Your task to perform on an android device: add a contact Image 0: 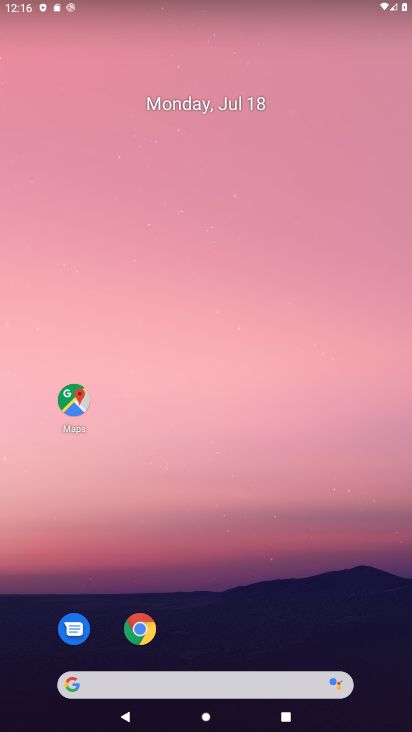
Step 0: click (180, 714)
Your task to perform on an android device: add a contact Image 1: 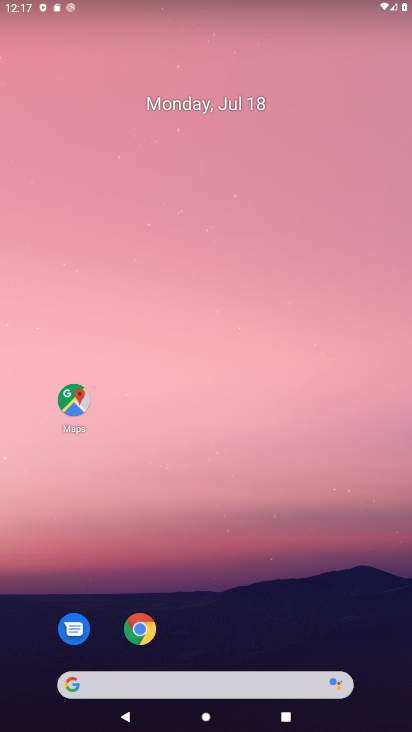
Step 1: press home button
Your task to perform on an android device: add a contact Image 2: 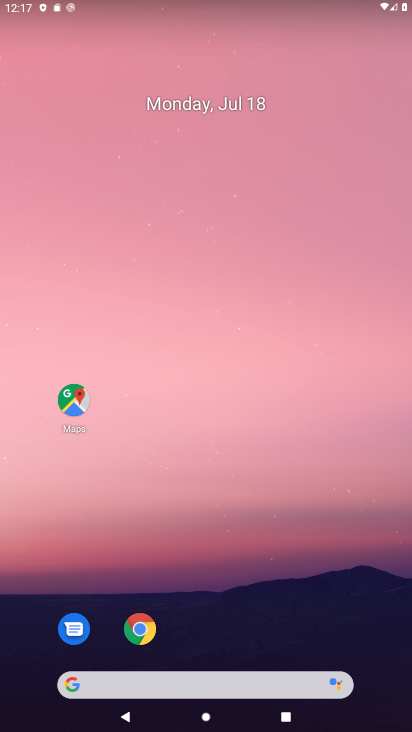
Step 2: drag from (222, 639) to (341, 16)
Your task to perform on an android device: add a contact Image 3: 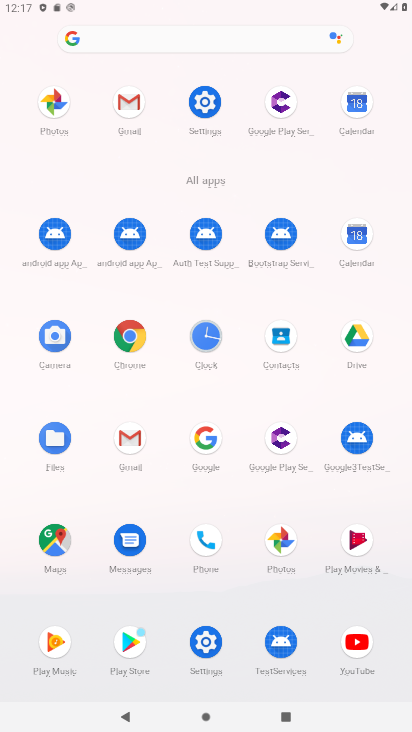
Step 3: click (296, 342)
Your task to perform on an android device: add a contact Image 4: 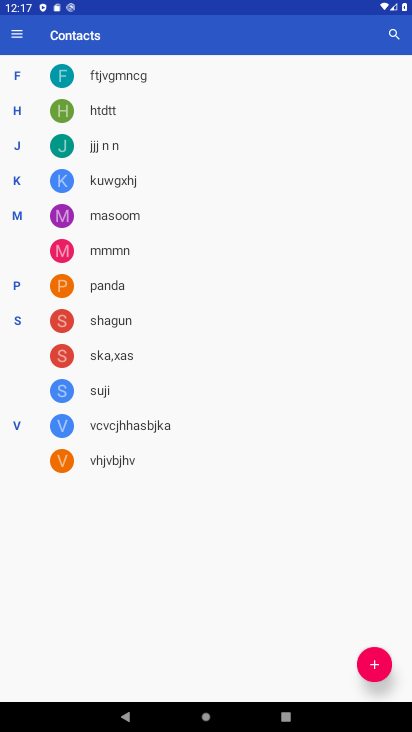
Step 4: click (368, 655)
Your task to perform on an android device: add a contact Image 5: 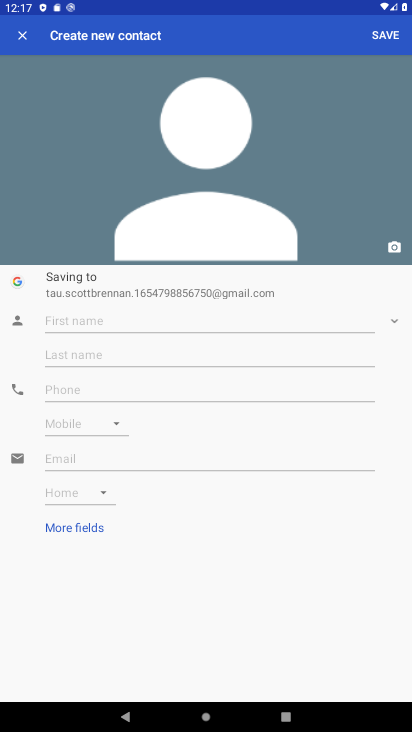
Step 5: type "tju"
Your task to perform on an android device: add a contact Image 6: 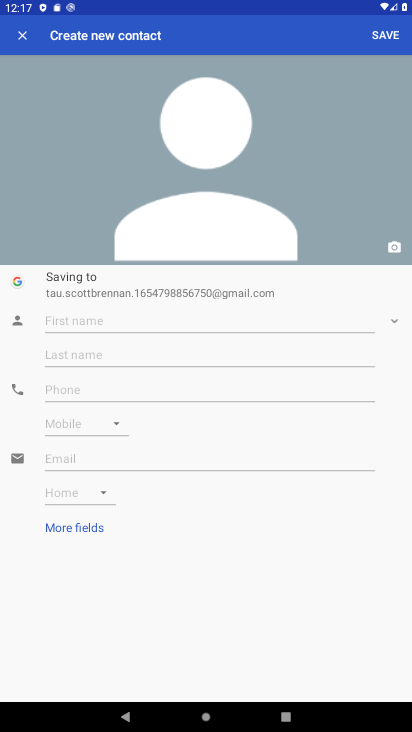
Step 6: click (176, 394)
Your task to perform on an android device: add a contact Image 7: 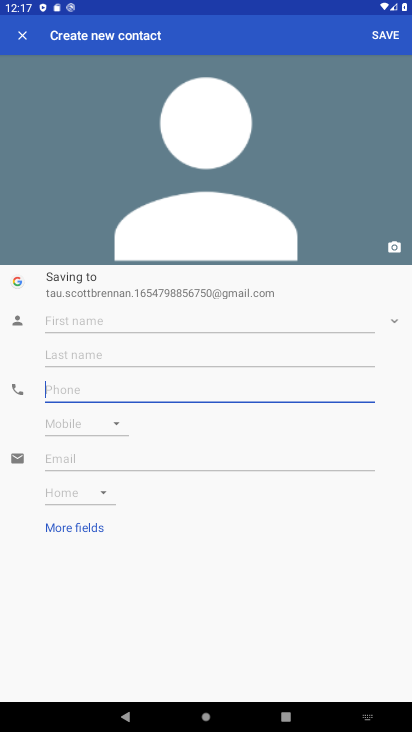
Step 7: type "5768"
Your task to perform on an android device: add a contact Image 8: 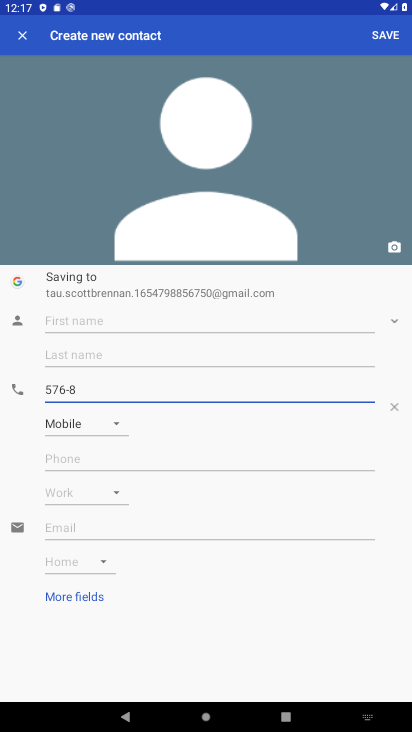
Step 8: click (148, 326)
Your task to perform on an android device: add a contact Image 9: 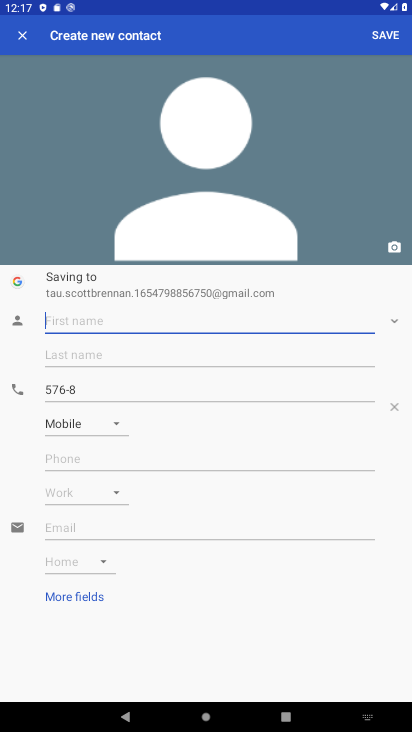
Step 9: type "chj"
Your task to perform on an android device: add a contact Image 10: 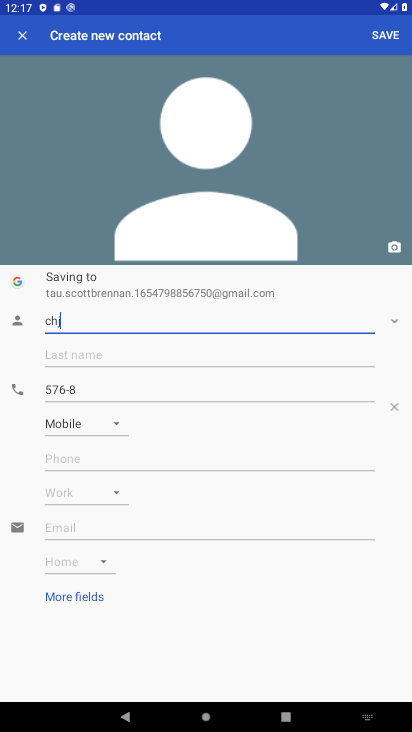
Step 10: type ""
Your task to perform on an android device: add a contact Image 11: 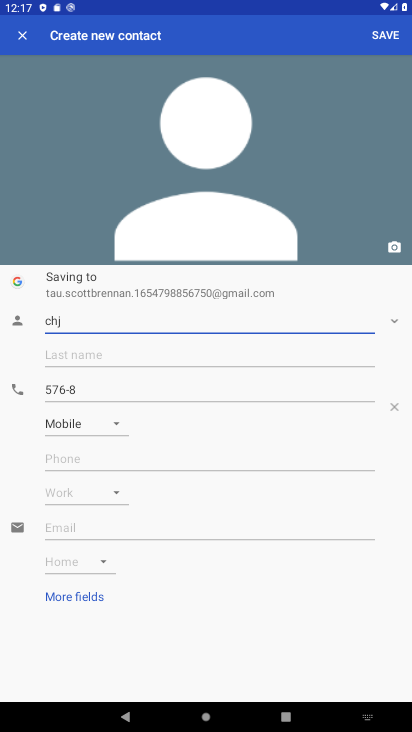
Step 11: click (385, 39)
Your task to perform on an android device: add a contact Image 12: 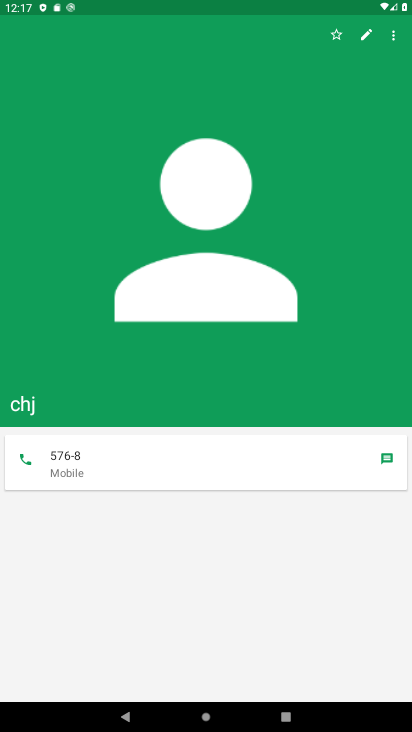
Step 12: task complete